Your task to perform on an android device: open a bookmark in the chrome app Image 0: 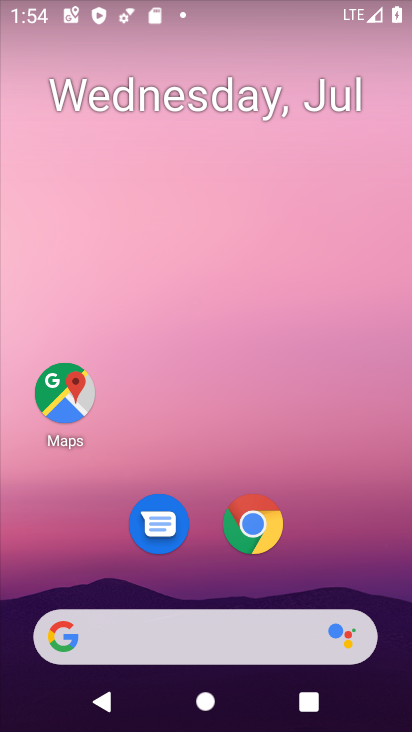
Step 0: click (262, 523)
Your task to perform on an android device: open a bookmark in the chrome app Image 1: 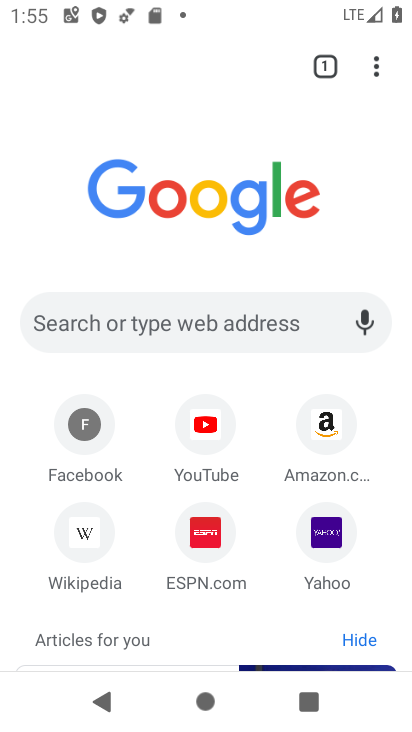
Step 1: click (374, 59)
Your task to perform on an android device: open a bookmark in the chrome app Image 2: 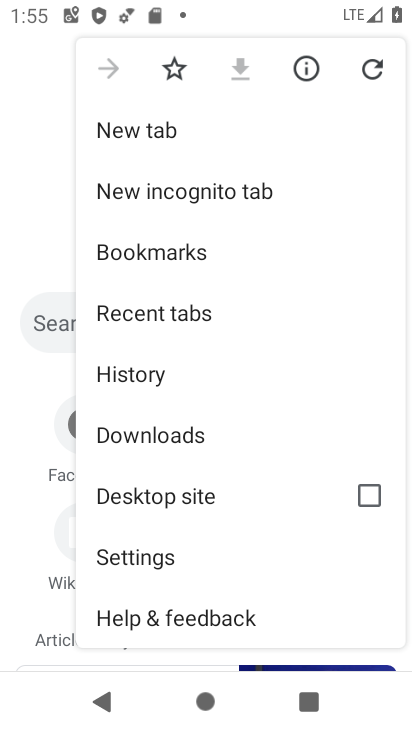
Step 2: click (188, 253)
Your task to perform on an android device: open a bookmark in the chrome app Image 3: 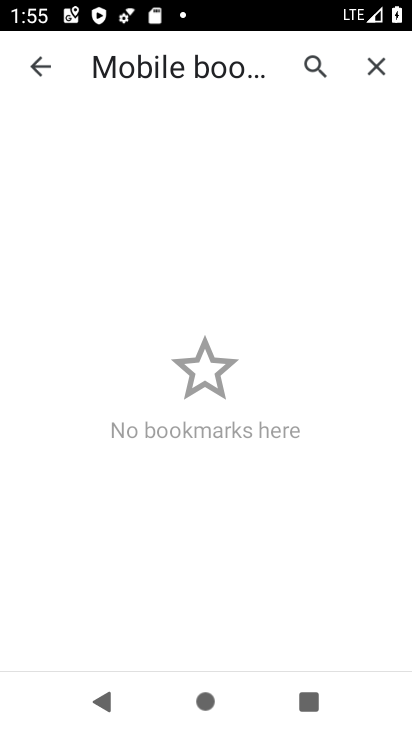
Step 3: task complete